Your task to perform on an android device: turn off translation in the chrome app Image 0: 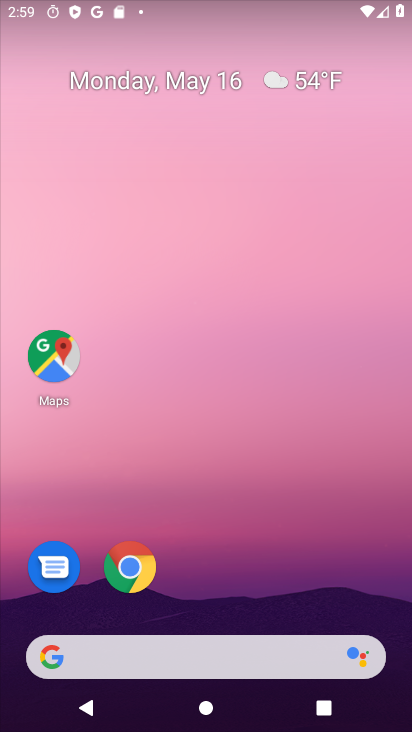
Step 0: click (129, 565)
Your task to perform on an android device: turn off translation in the chrome app Image 1: 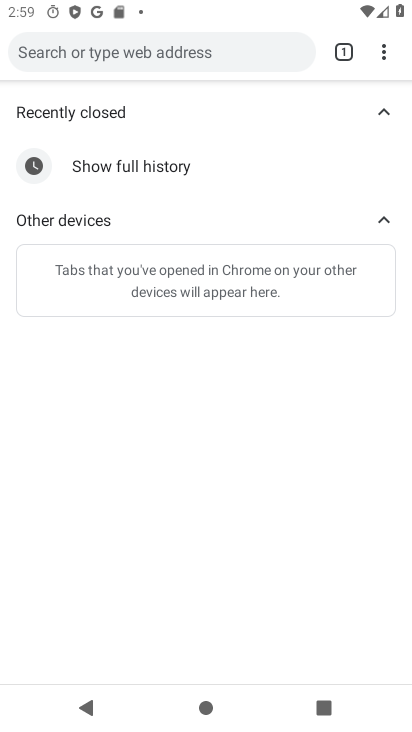
Step 1: click (384, 54)
Your task to perform on an android device: turn off translation in the chrome app Image 2: 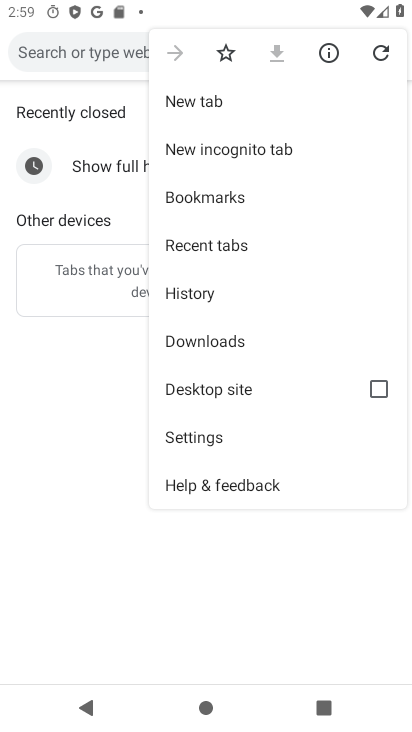
Step 2: click (192, 431)
Your task to perform on an android device: turn off translation in the chrome app Image 3: 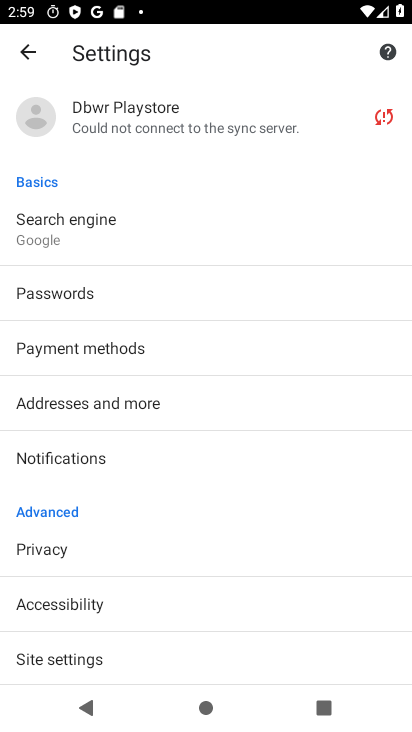
Step 3: drag from (92, 554) to (128, 459)
Your task to perform on an android device: turn off translation in the chrome app Image 4: 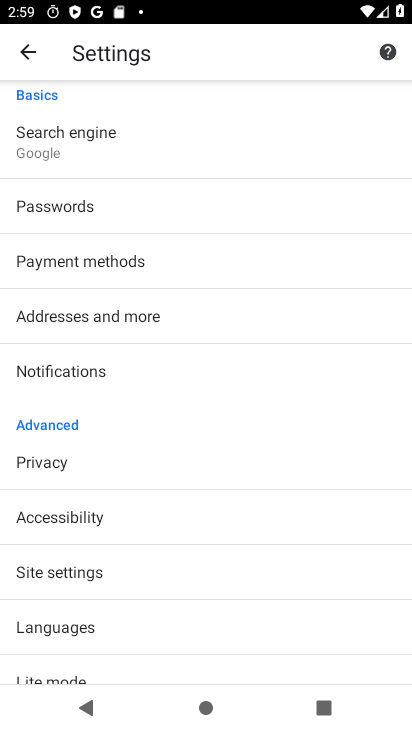
Step 4: click (77, 627)
Your task to perform on an android device: turn off translation in the chrome app Image 5: 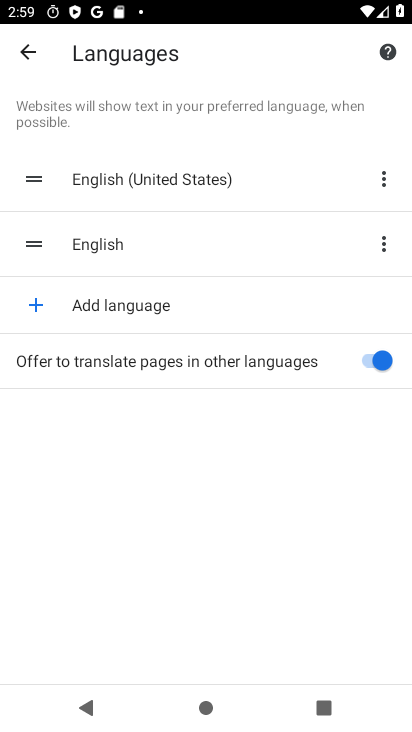
Step 5: click (385, 356)
Your task to perform on an android device: turn off translation in the chrome app Image 6: 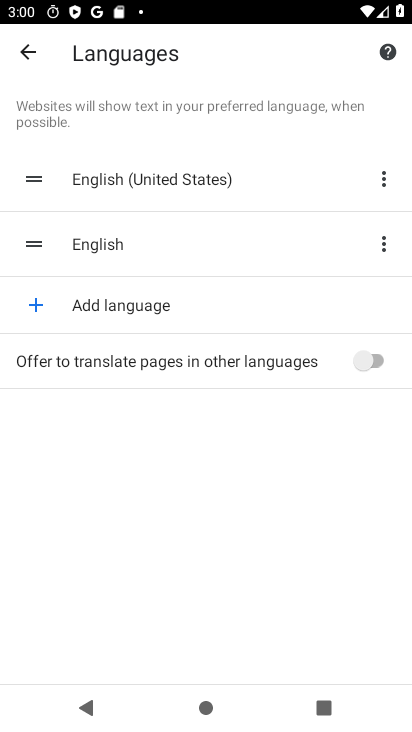
Step 6: task complete